Your task to perform on an android device: Open calendar and show me the first week of next month Image 0: 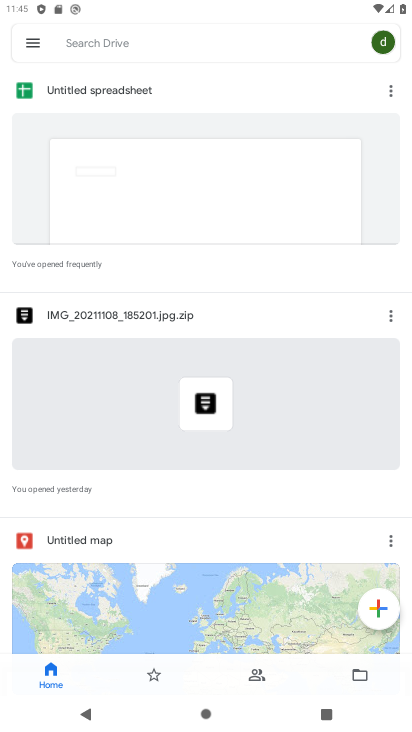
Step 0: press home button
Your task to perform on an android device: Open calendar and show me the first week of next month Image 1: 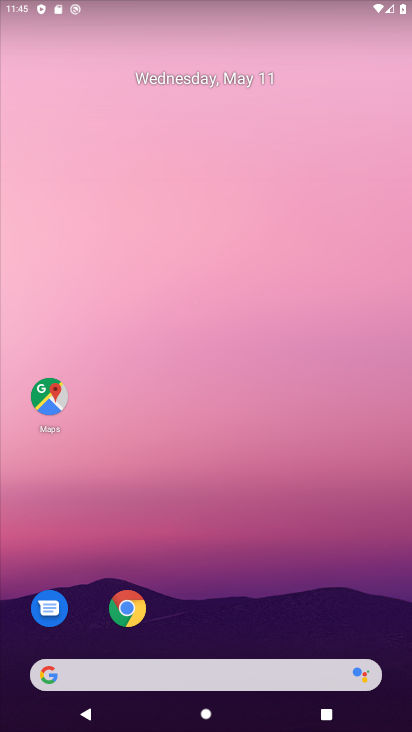
Step 1: drag from (267, 612) to (205, 30)
Your task to perform on an android device: Open calendar and show me the first week of next month Image 2: 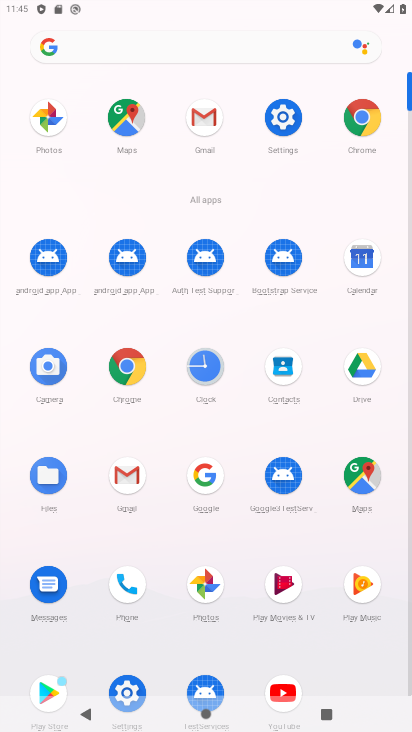
Step 2: click (352, 250)
Your task to perform on an android device: Open calendar and show me the first week of next month Image 3: 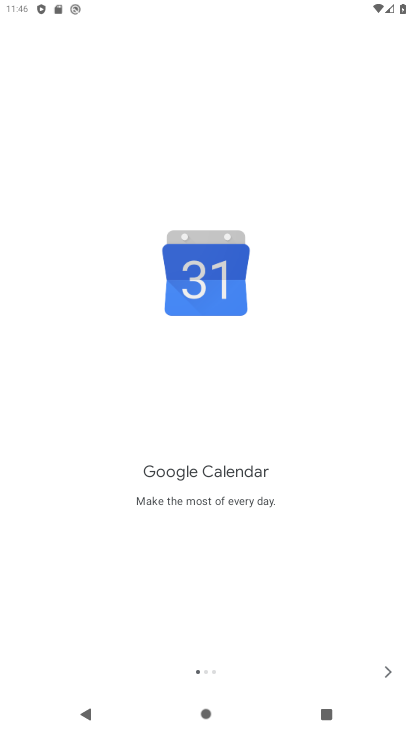
Step 3: click (381, 669)
Your task to perform on an android device: Open calendar and show me the first week of next month Image 4: 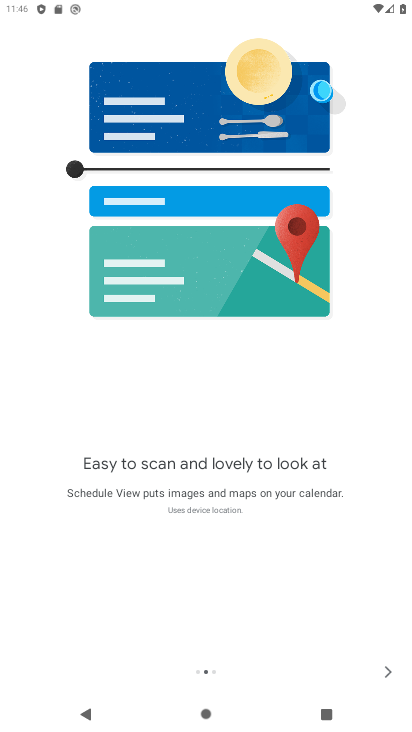
Step 4: click (381, 669)
Your task to perform on an android device: Open calendar and show me the first week of next month Image 5: 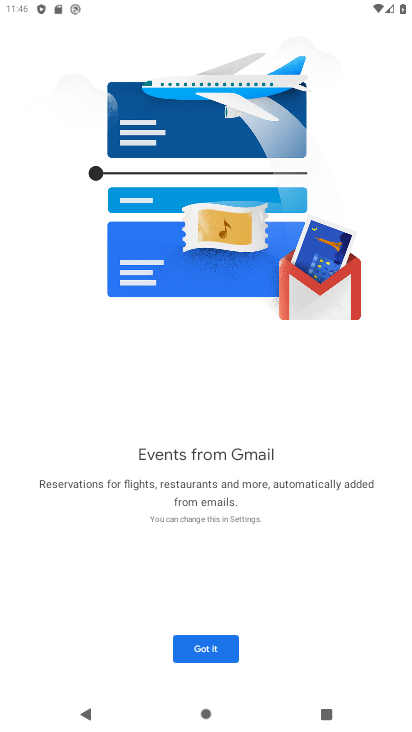
Step 5: click (225, 641)
Your task to perform on an android device: Open calendar and show me the first week of next month Image 6: 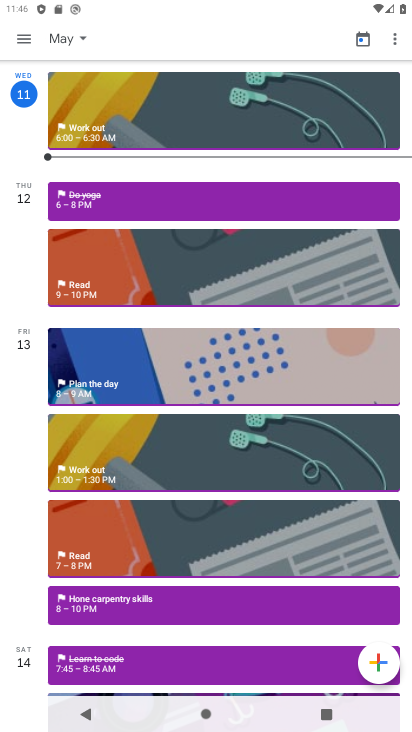
Step 6: click (85, 42)
Your task to perform on an android device: Open calendar and show me the first week of next month Image 7: 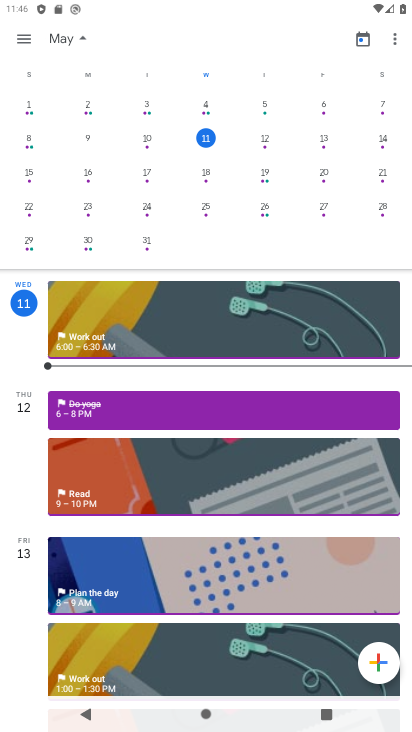
Step 7: drag from (282, 149) to (2, 203)
Your task to perform on an android device: Open calendar and show me the first week of next month Image 8: 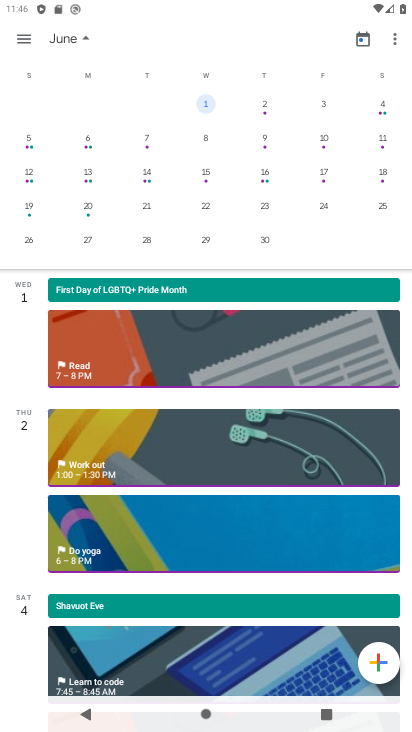
Step 8: click (28, 38)
Your task to perform on an android device: Open calendar and show me the first week of next month Image 9: 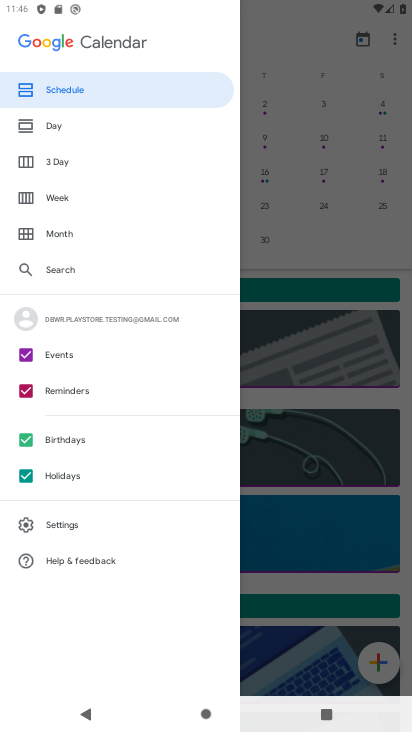
Step 9: click (56, 200)
Your task to perform on an android device: Open calendar and show me the first week of next month Image 10: 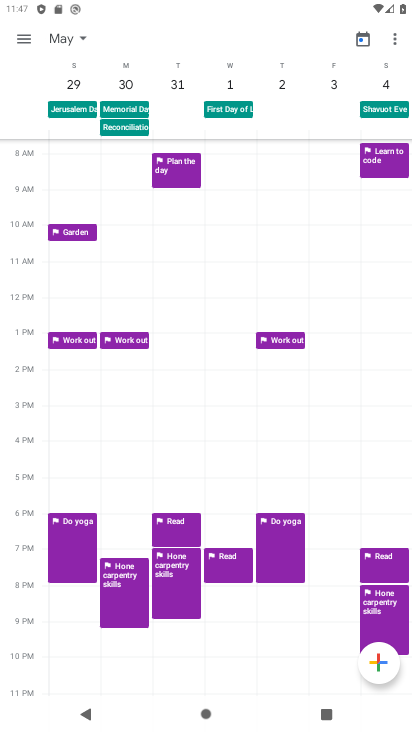
Step 10: task complete